Your task to perform on an android device: change the clock style Image 0: 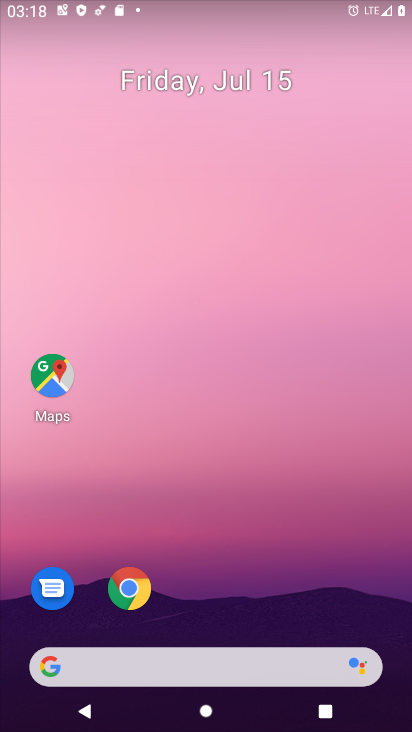
Step 0: drag from (227, 662) to (268, 152)
Your task to perform on an android device: change the clock style Image 1: 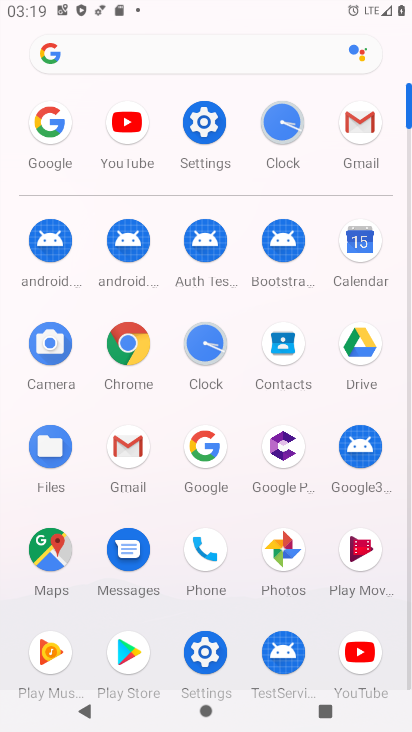
Step 1: click (204, 343)
Your task to perform on an android device: change the clock style Image 2: 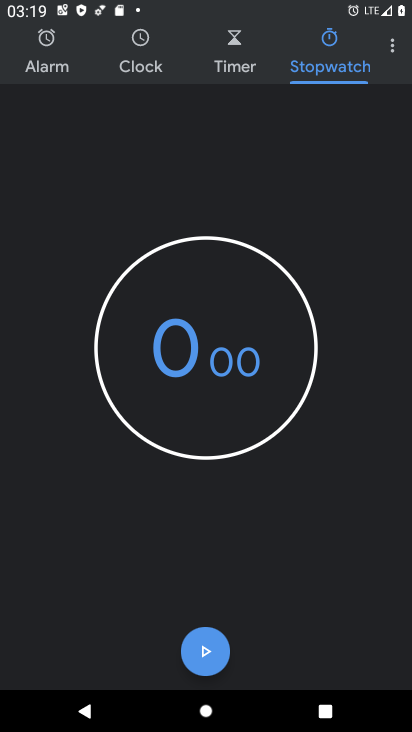
Step 2: click (393, 46)
Your task to perform on an android device: change the clock style Image 3: 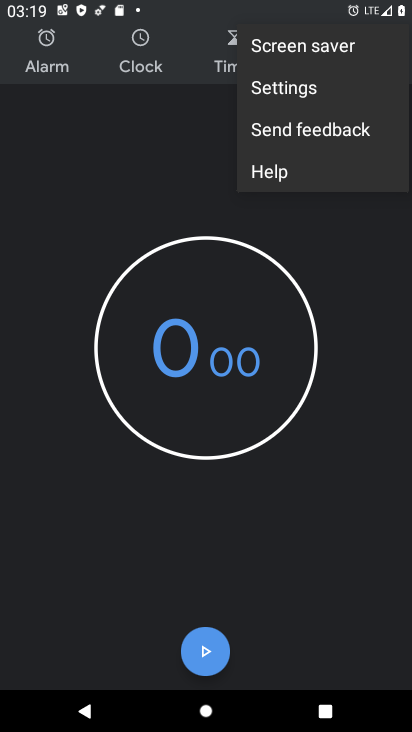
Step 3: click (301, 93)
Your task to perform on an android device: change the clock style Image 4: 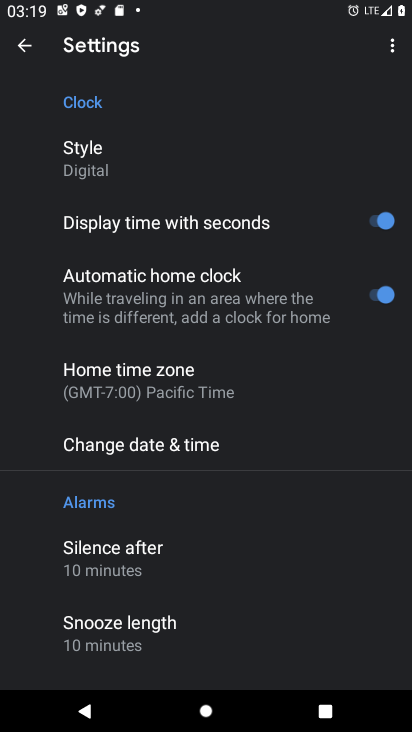
Step 4: click (126, 177)
Your task to perform on an android device: change the clock style Image 5: 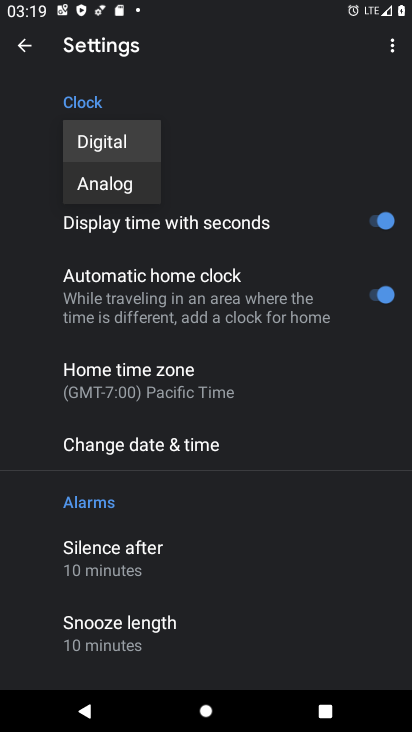
Step 5: click (113, 193)
Your task to perform on an android device: change the clock style Image 6: 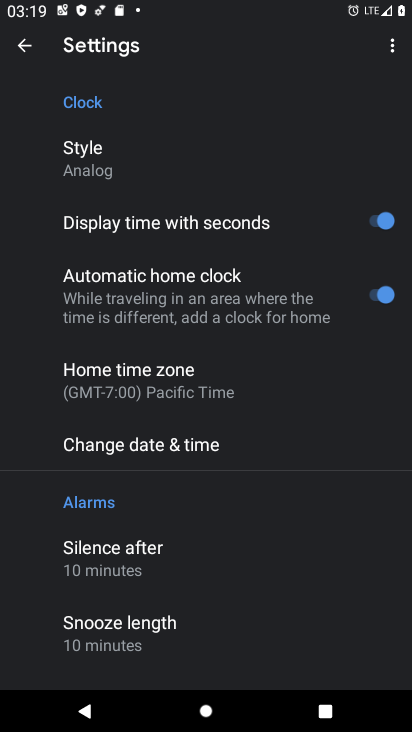
Step 6: task complete